Your task to perform on an android device: Go to eBay Image 0: 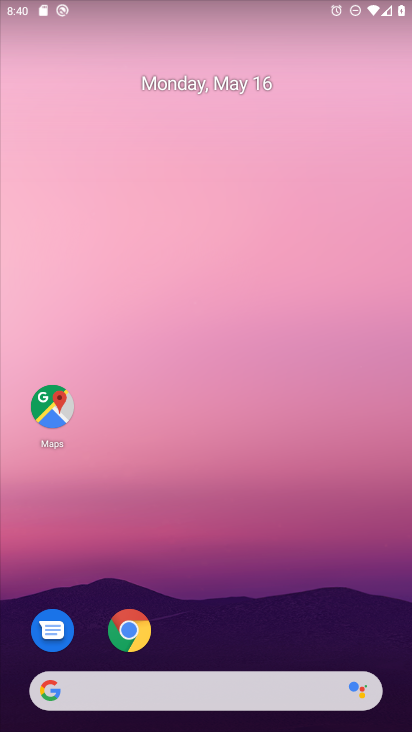
Step 0: click (130, 625)
Your task to perform on an android device: Go to eBay Image 1: 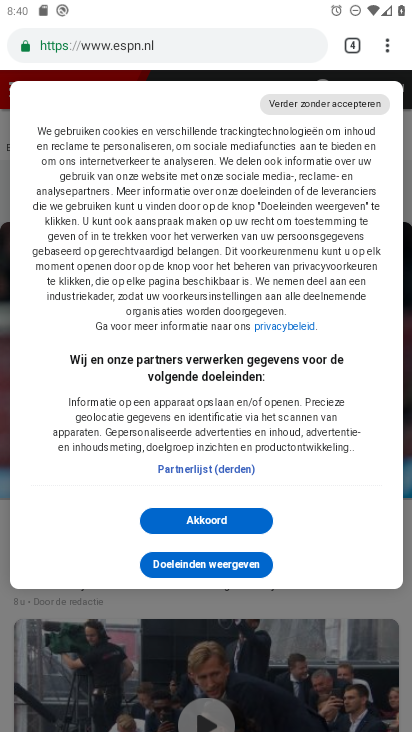
Step 1: click (359, 40)
Your task to perform on an android device: Go to eBay Image 2: 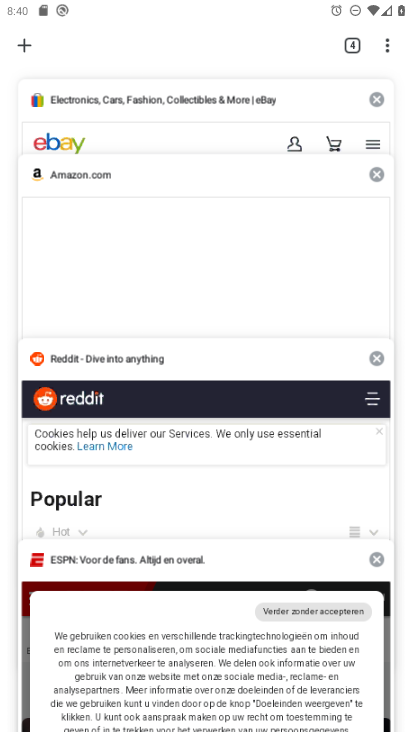
Step 2: click (177, 123)
Your task to perform on an android device: Go to eBay Image 3: 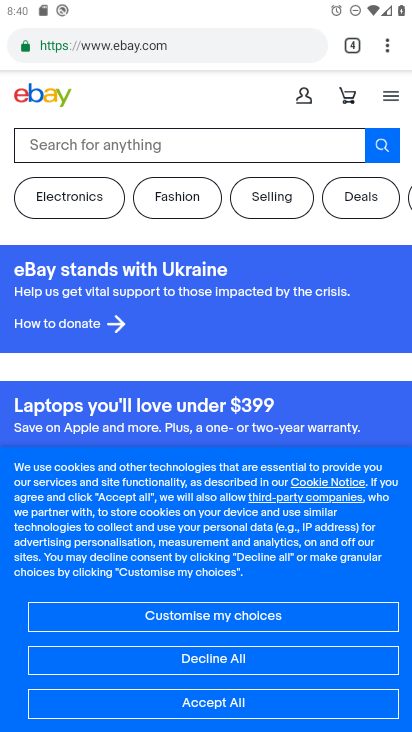
Step 3: task complete